Your task to perform on an android device: Open CNN.com Image 0: 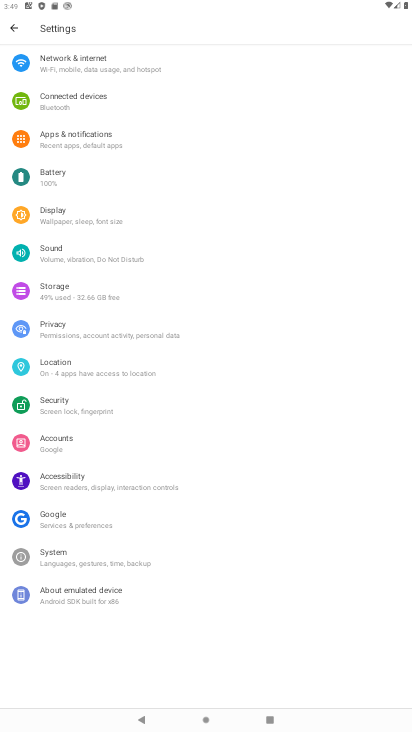
Step 0: press home button
Your task to perform on an android device: Open CNN.com Image 1: 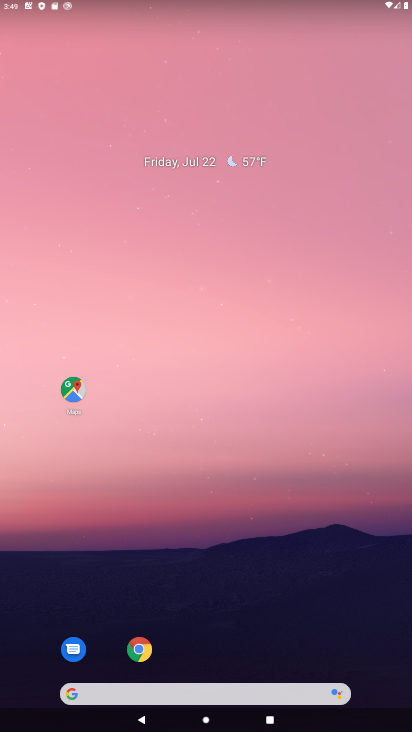
Step 1: click (77, 691)
Your task to perform on an android device: Open CNN.com Image 2: 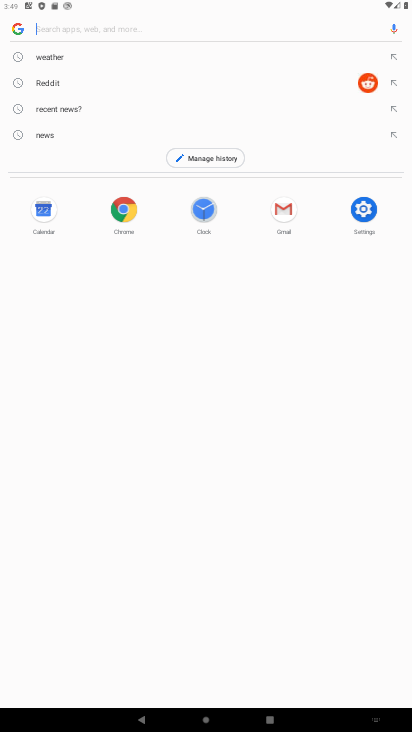
Step 2: type "CNN.com"
Your task to perform on an android device: Open CNN.com Image 3: 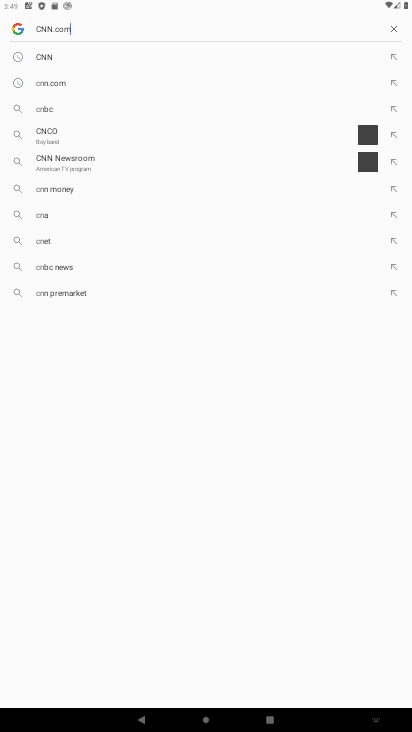
Step 3: type ""
Your task to perform on an android device: Open CNN.com Image 4: 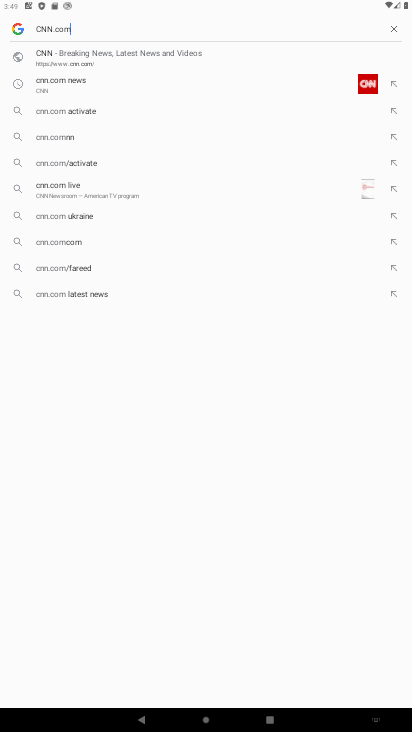
Step 4: click (55, 54)
Your task to perform on an android device: Open CNN.com Image 5: 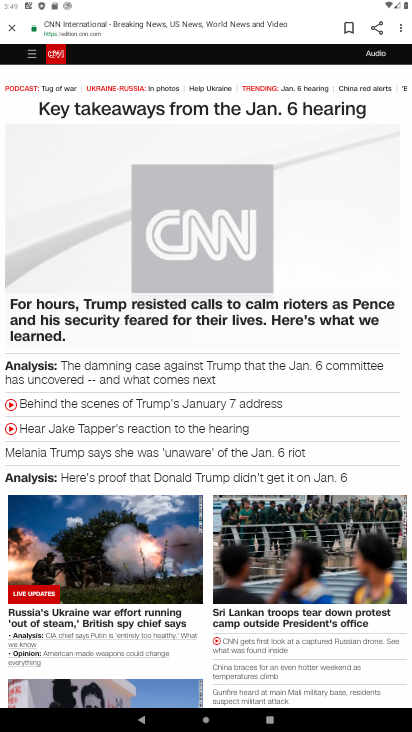
Step 5: task complete